Your task to perform on an android device: toggle javascript in the chrome app Image 0: 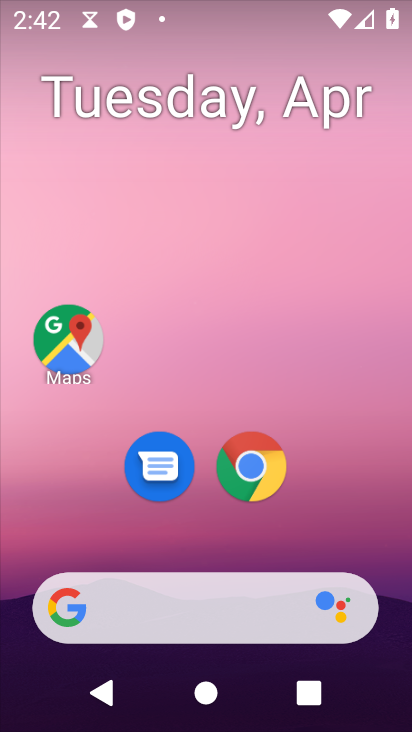
Step 0: drag from (381, 505) to (261, 40)
Your task to perform on an android device: toggle javascript in the chrome app Image 1: 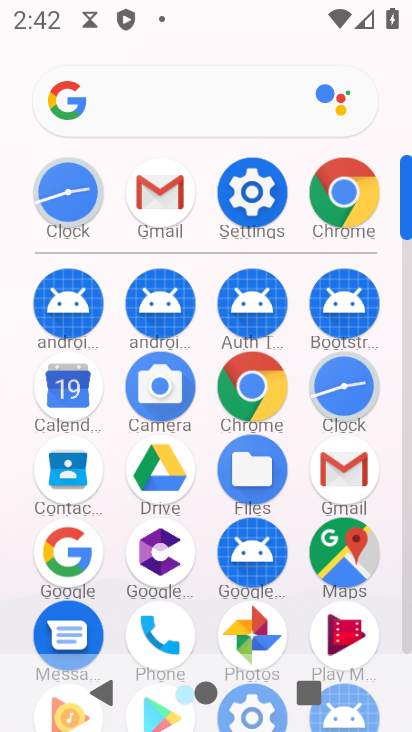
Step 1: drag from (11, 574) to (10, 320)
Your task to perform on an android device: toggle javascript in the chrome app Image 2: 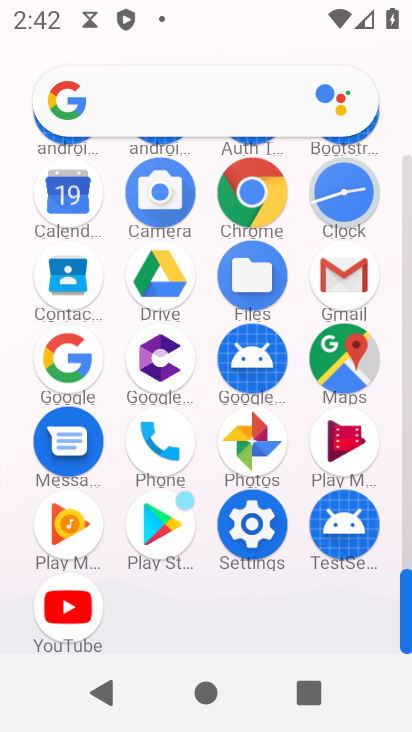
Step 2: click (251, 184)
Your task to perform on an android device: toggle javascript in the chrome app Image 3: 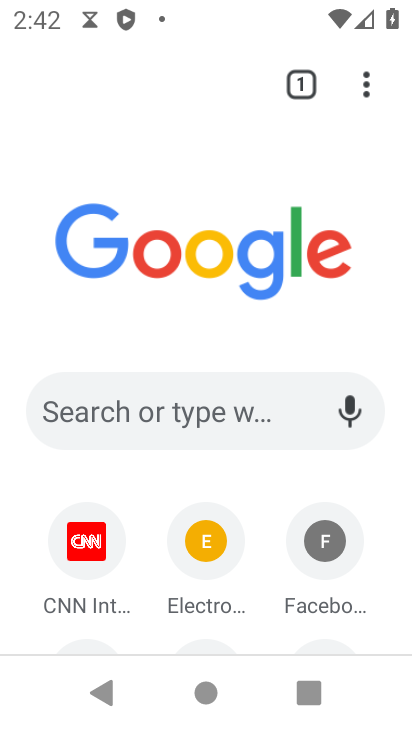
Step 3: drag from (17, 509) to (26, 230)
Your task to perform on an android device: toggle javascript in the chrome app Image 4: 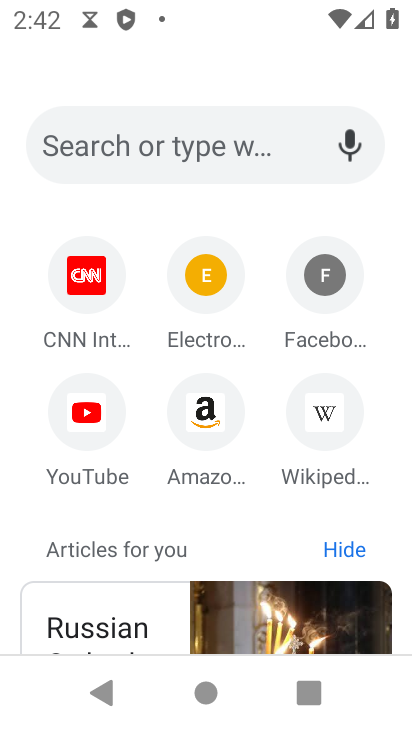
Step 4: drag from (31, 138) to (18, 401)
Your task to perform on an android device: toggle javascript in the chrome app Image 5: 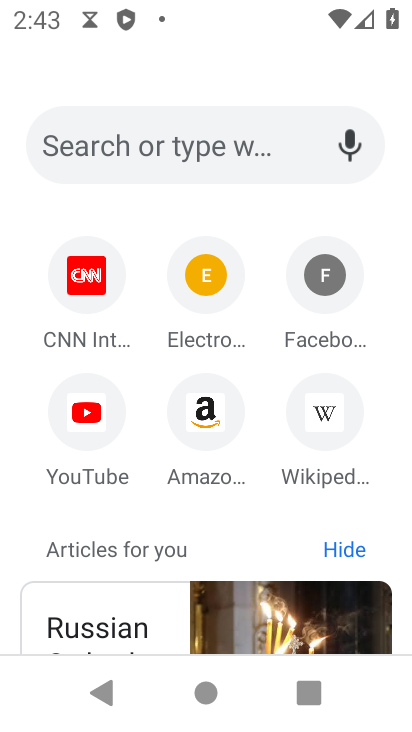
Step 5: drag from (17, 103) to (10, 384)
Your task to perform on an android device: toggle javascript in the chrome app Image 6: 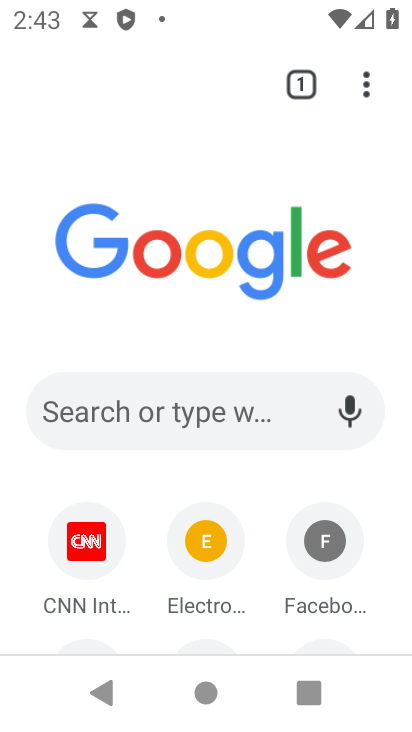
Step 6: drag from (362, 85) to (146, 513)
Your task to perform on an android device: toggle javascript in the chrome app Image 7: 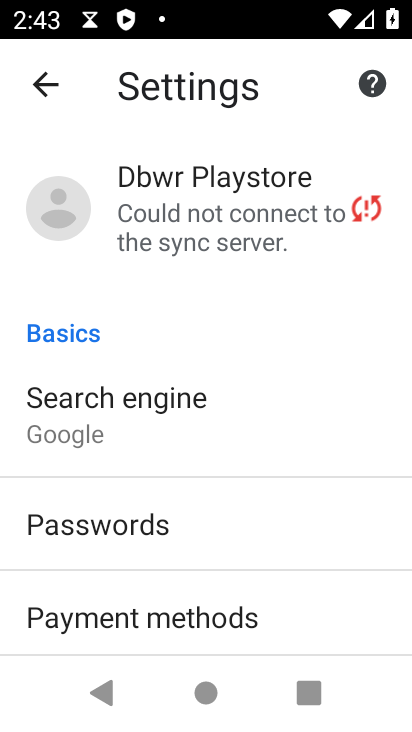
Step 7: drag from (280, 581) to (255, 290)
Your task to perform on an android device: toggle javascript in the chrome app Image 8: 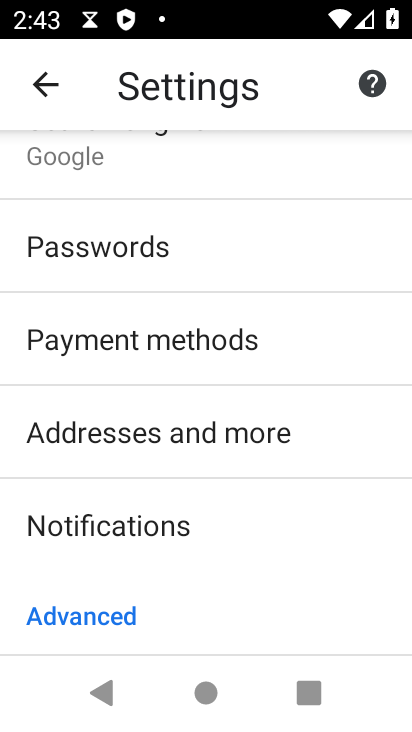
Step 8: drag from (255, 523) to (262, 171)
Your task to perform on an android device: toggle javascript in the chrome app Image 9: 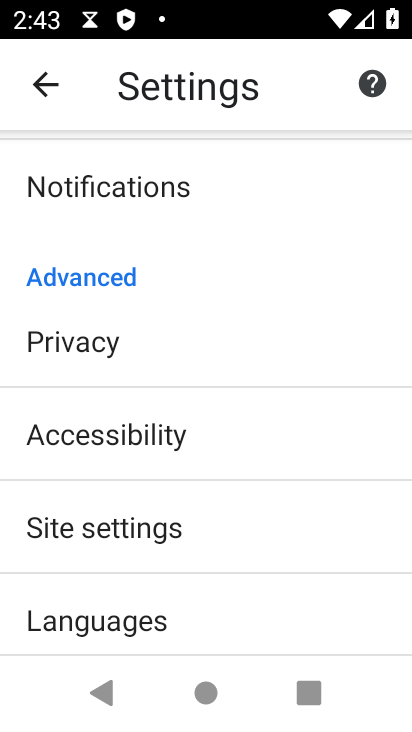
Step 9: drag from (229, 564) to (225, 236)
Your task to perform on an android device: toggle javascript in the chrome app Image 10: 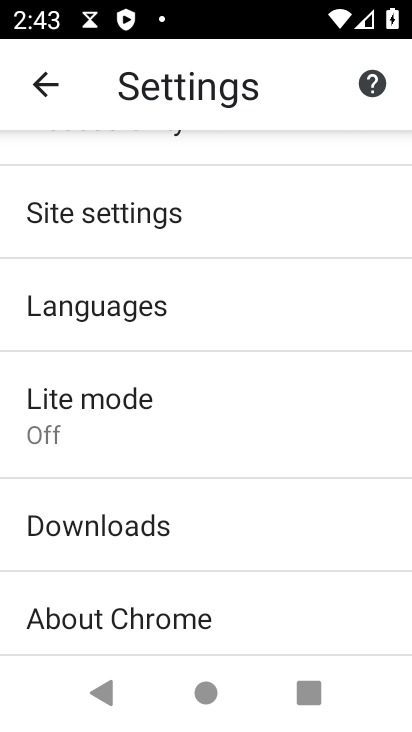
Step 10: click (170, 212)
Your task to perform on an android device: toggle javascript in the chrome app Image 11: 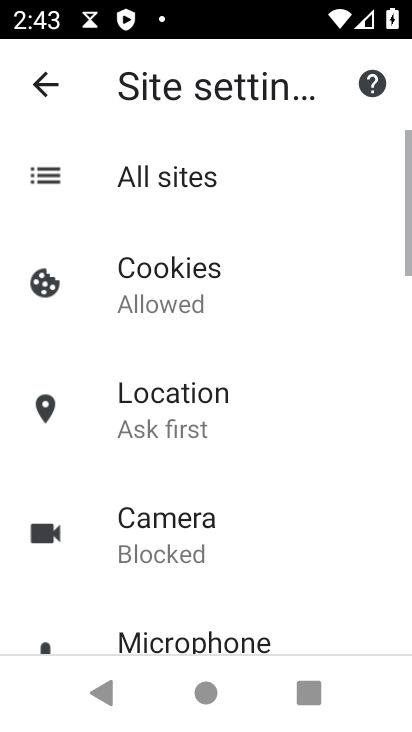
Step 11: drag from (216, 629) to (214, 173)
Your task to perform on an android device: toggle javascript in the chrome app Image 12: 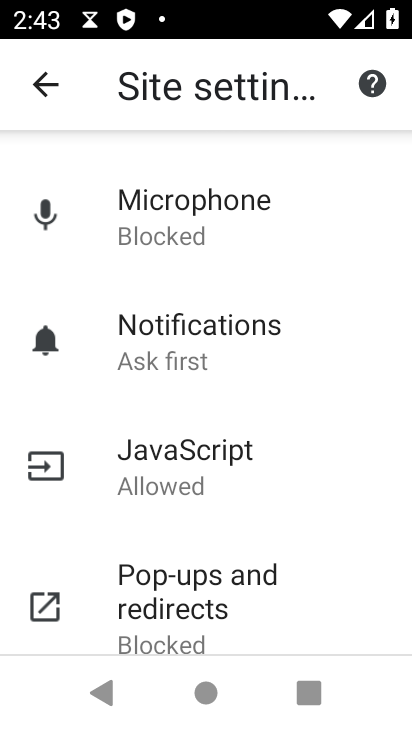
Step 12: click (214, 457)
Your task to perform on an android device: toggle javascript in the chrome app Image 13: 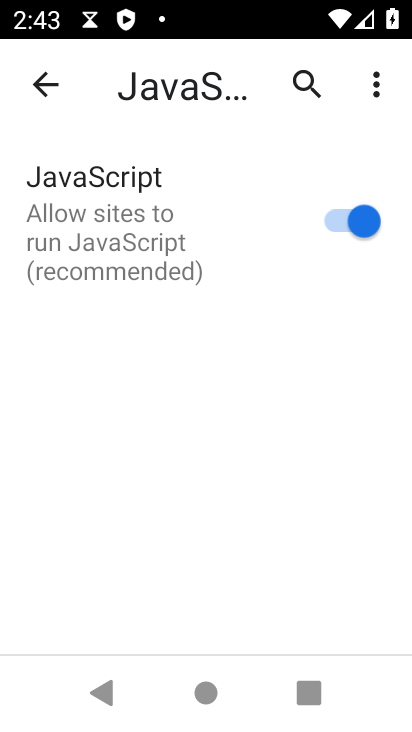
Step 13: click (338, 208)
Your task to perform on an android device: toggle javascript in the chrome app Image 14: 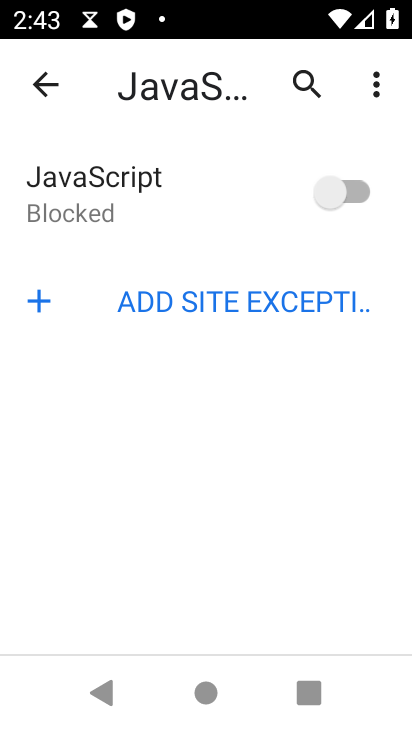
Step 14: task complete